Your task to perform on an android device: add a contact in the contacts app Image 0: 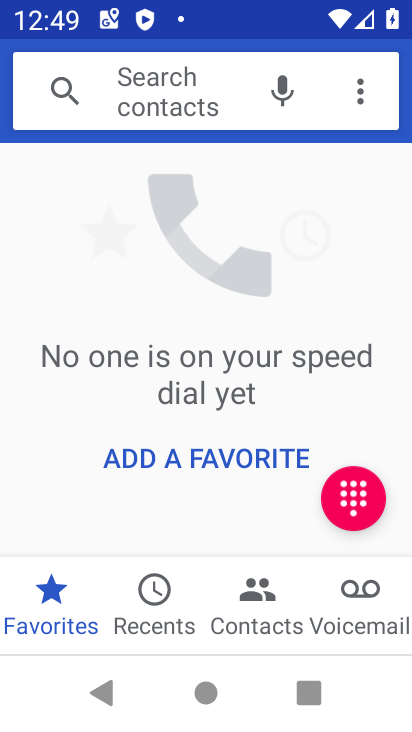
Step 0: press home button
Your task to perform on an android device: add a contact in the contacts app Image 1: 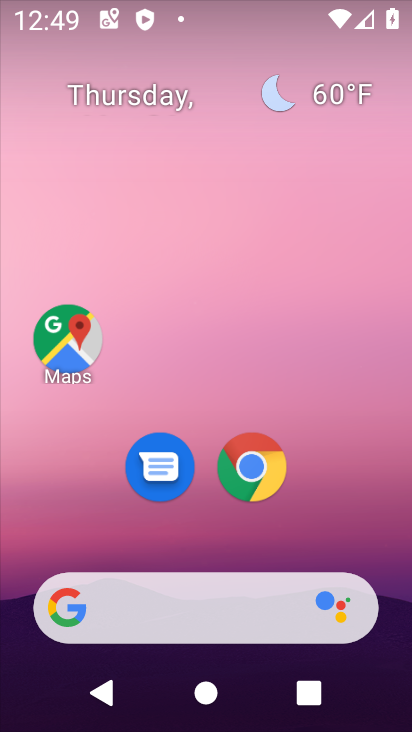
Step 1: drag from (222, 535) to (254, 13)
Your task to perform on an android device: add a contact in the contacts app Image 2: 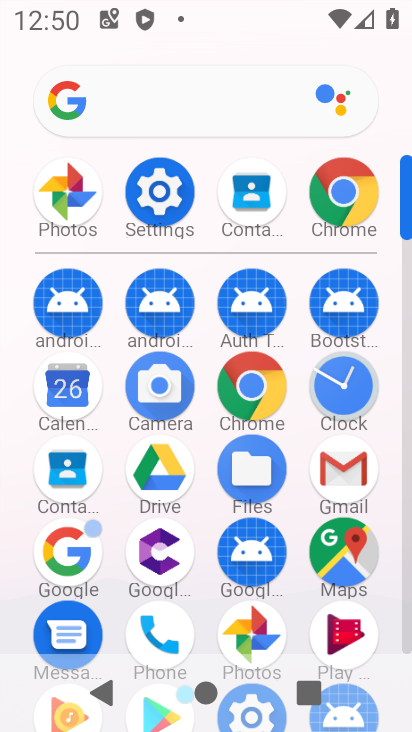
Step 2: click (71, 478)
Your task to perform on an android device: add a contact in the contacts app Image 3: 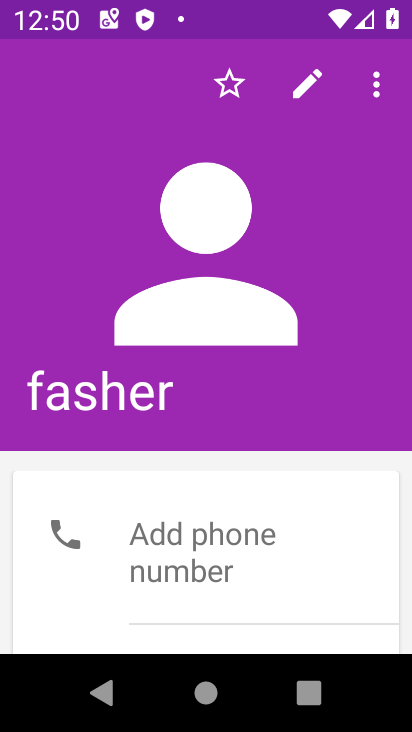
Step 3: press back button
Your task to perform on an android device: add a contact in the contacts app Image 4: 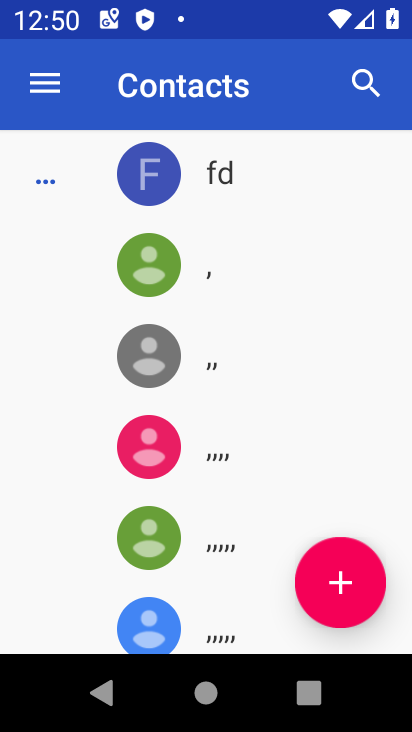
Step 4: click (353, 591)
Your task to perform on an android device: add a contact in the contacts app Image 5: 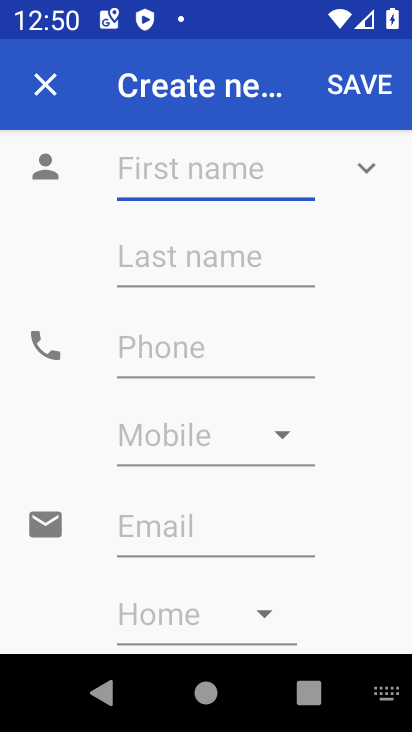
Step 5: type "aflouse"
Your task to perform on an android device: add a contact in the contacts app Image 6: 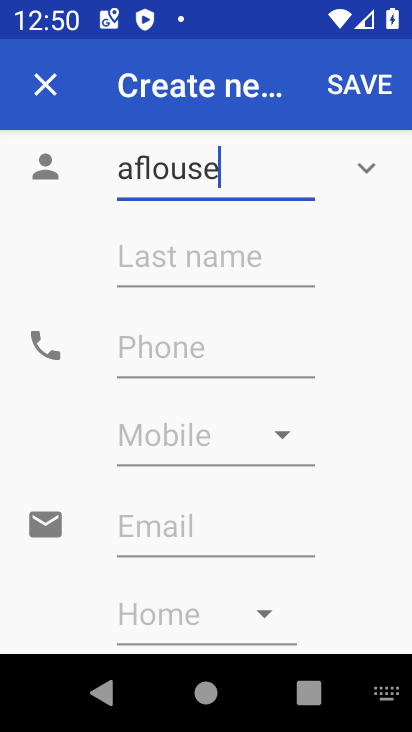
Step 6: click (369, 96)
Your task to perform on an android device: add a contact in the contacts app Image 7: 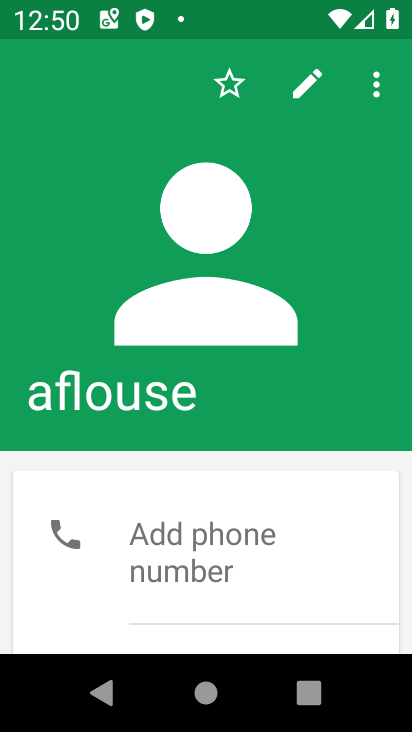
Step 7: task complete